Your task to perform on an android device: turn on wifi Image 0: 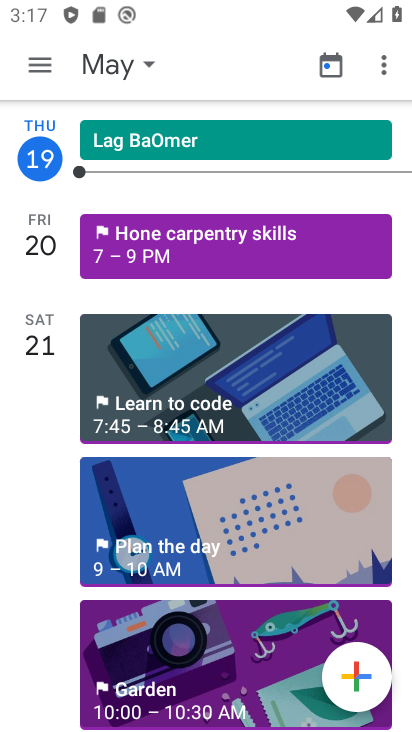
Step 0: press home button
Your task to perform on an android device: turn on wifi Image 1: 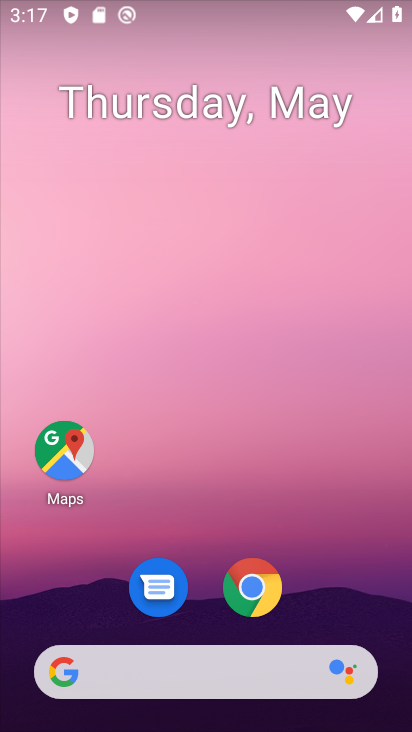
Step 1: drag from (201, 667) to (200, 280)
Your task to perform on an android device: turn on wifi Image 2: 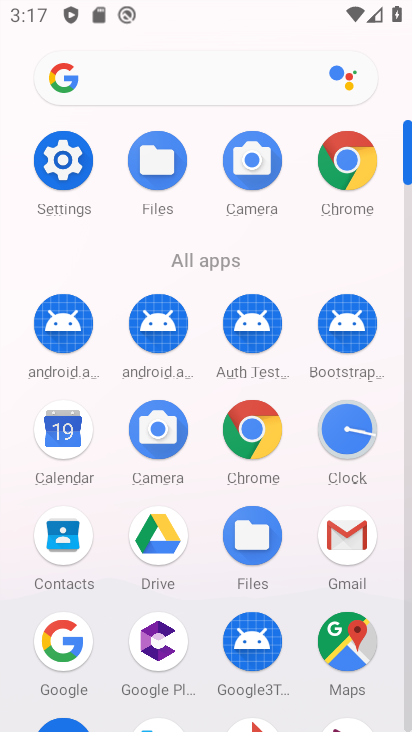
Step 2: click (53, 162)
Your task to perform on an android device: turn on wifi Image 3: 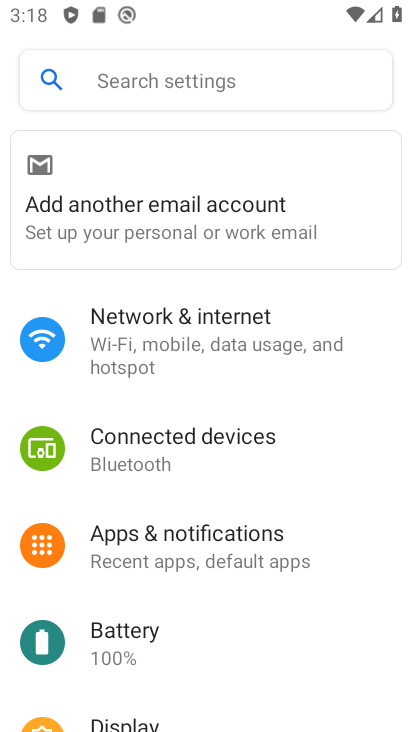
Step 3: click (160, 338)
Your task to perform on an android device: turn on wifi Image 4: 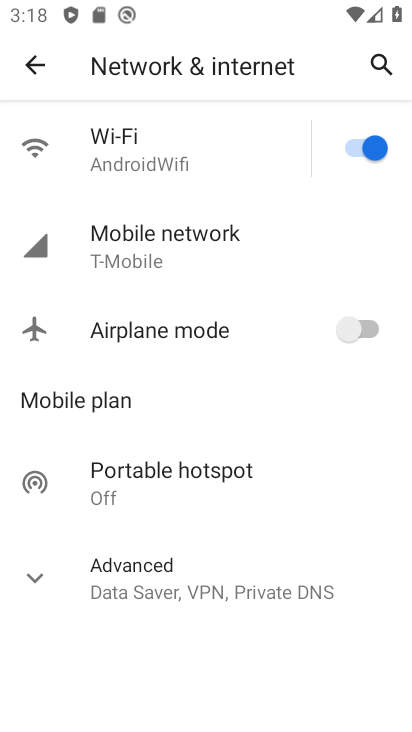
Step 4: task complete